Your task to perform on an android device: Search for pizza restaurants on Maps Image 0: 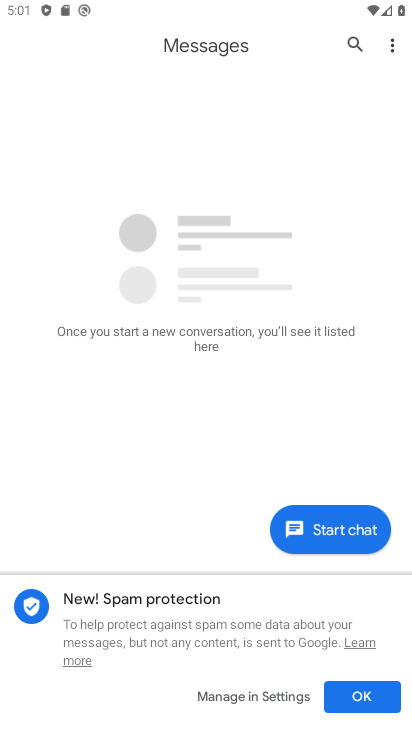
Step 0: press home button
Your task to perform on an android device: Search for pizza restaurants on Maps Image 1: 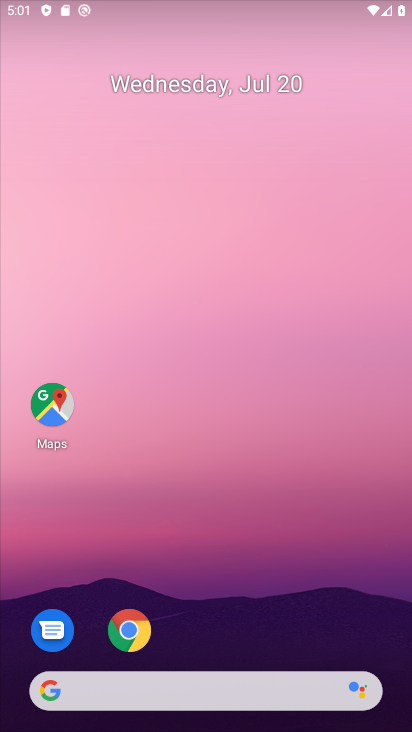
Step 1: drag from (272, 692) to (365, 0)
Your task to perform on an android device: Search for pizza restaurants on Maps Image 2: 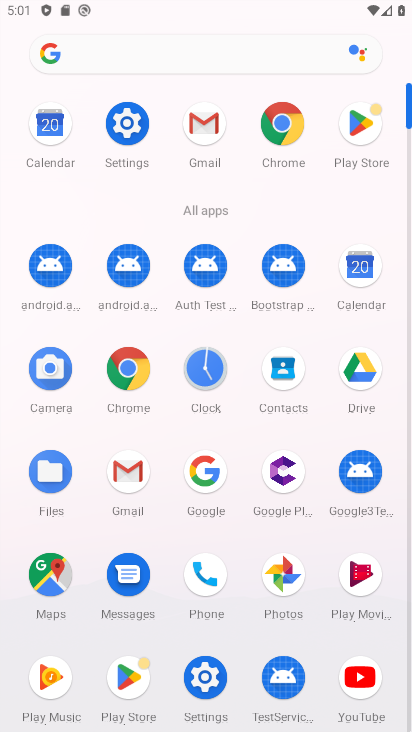
Step 2: click (64, 571)
Your task to perform on an android device: Search for pizza restaurants on Maps Image 3: 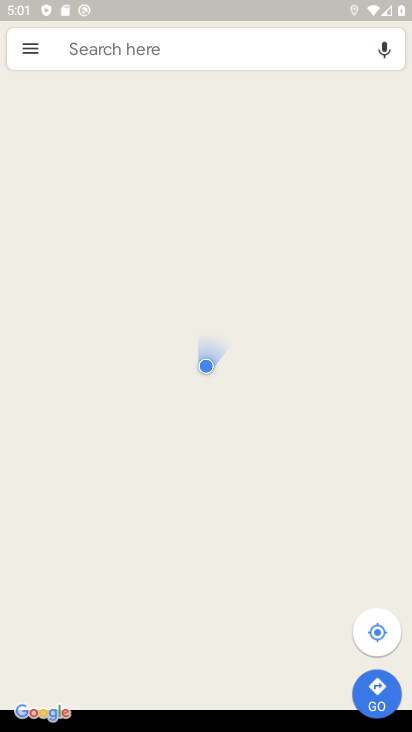
Step 3: click (243, 32)
Your task to perform on an android device: Search for pizza restaurants on Maps Image 4: 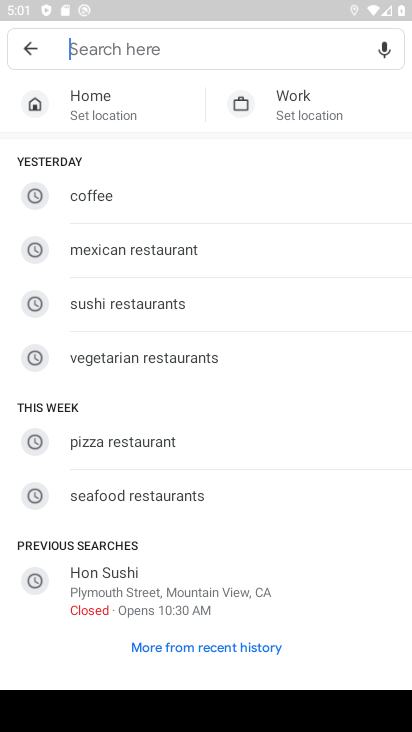
Step 4: click (164, 443)
Your task to perform on an android device: Search for pizza restaurants on Maps Image 5: 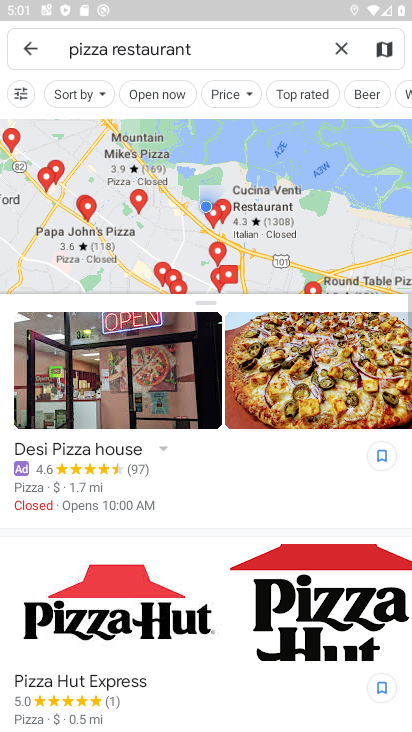
Step 5: task complete